Your task to perform on an android device: Show me recent news Image 0: 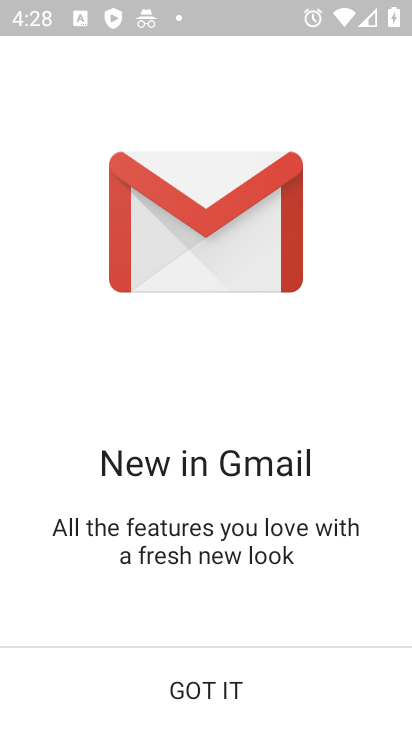
Step 0: click (245, 701)
Your task to perform on an android device: Show me recent news Image 1: 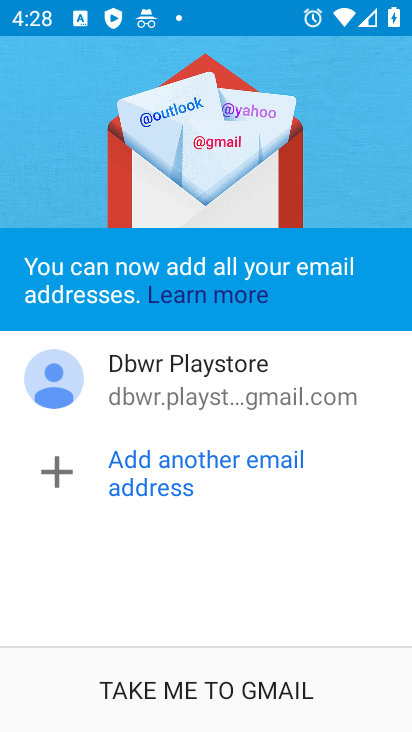
Step 1: click (261, 687)
Your task to perform on an android device: Show me recent news Image 2: 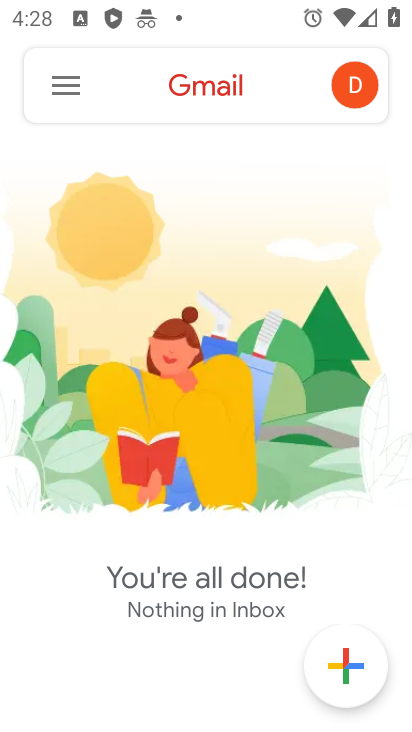
Step 2: press home button
Your task to perform on an android device: Show me recent news Image 3: 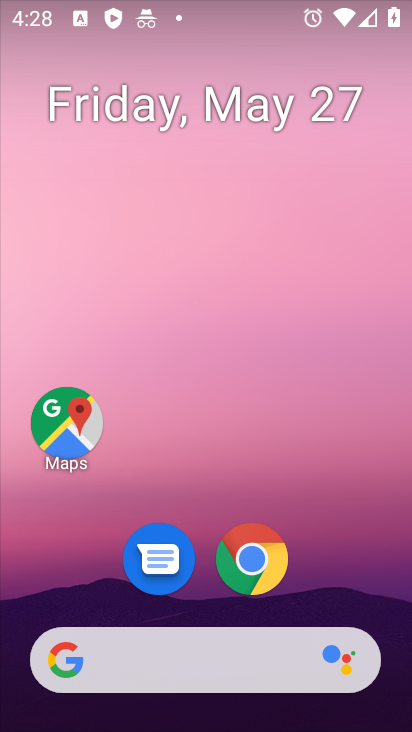
Step 3: drag from (349, 629) to (299, 51)
Your task to perform on an android device: Show me recent news Image 4: 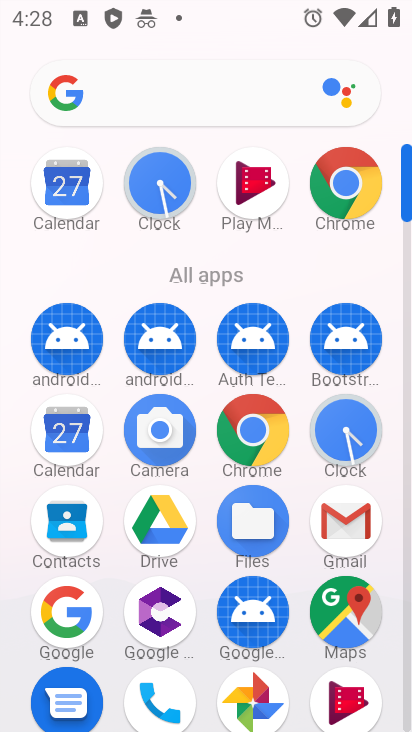
Step 4: click (239, 428)
Your task to perform on an android device: Show me recent news Image 5: 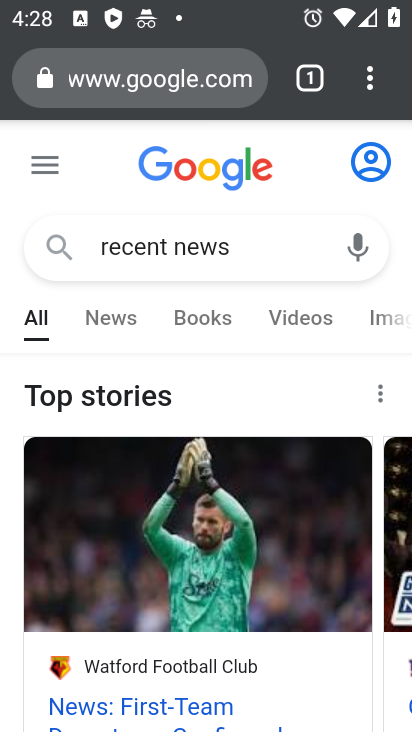
Step 5: click (211, 89)
Your task to perform on an android device: Show me recent news Image 6: 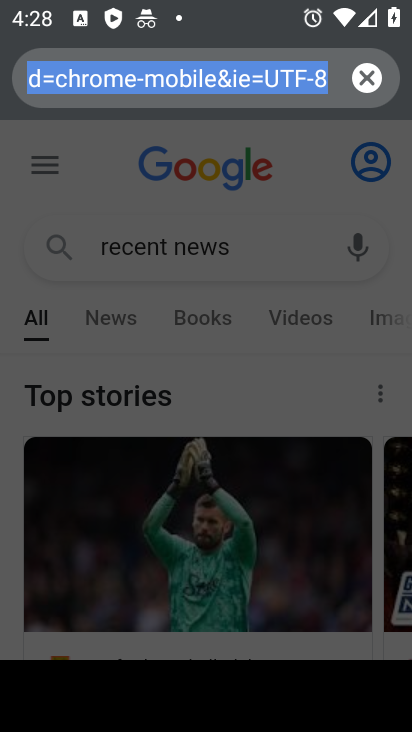
Step 6: type "recent news"
Your task to perform on an android device: Show me recent news Image 7: 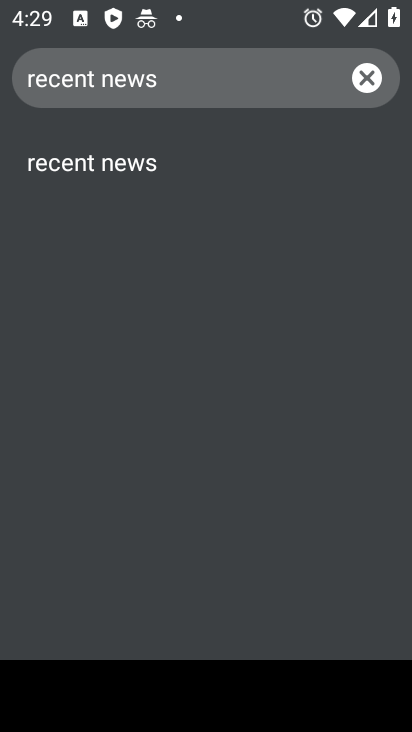
Step 7: click (150, 167)
Your task to perform on an android device: Show me recent news Image 8: 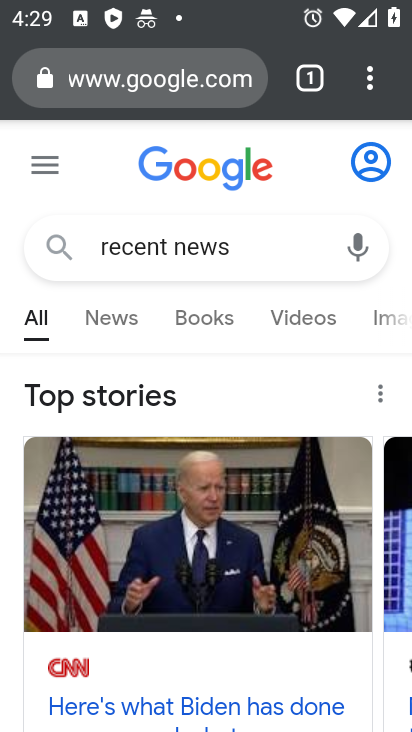
Step 8: task complete